Your task to perform on an android device: turn on priority inbox in the gmail app Image 0: 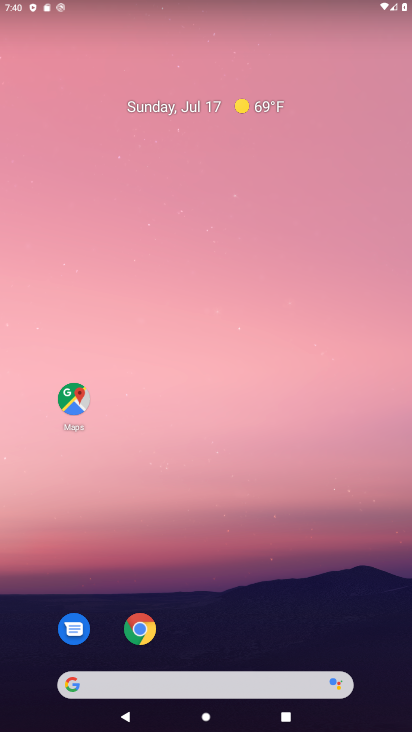
Step 0: drag from (248, 629) to (231, 137)
Your task to perform on an android device: turn on priority inbox in the gmail app Image 1: 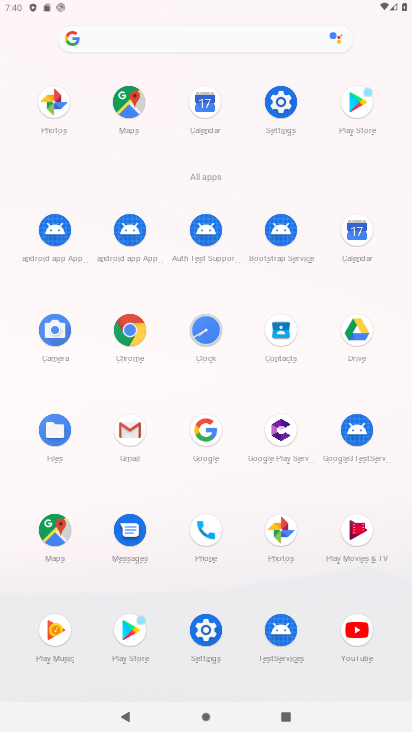
Step 1: click (125, 431)
Your task to perform on an android device: turn on priority inbox in the gmail app Image 2: 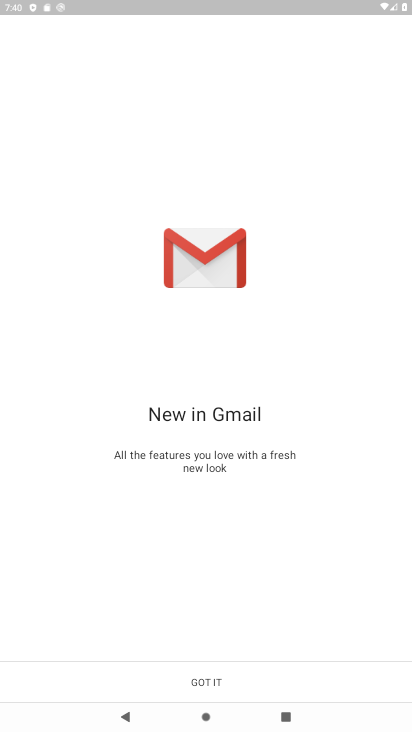
Step 2: click (204, 681)
Your task to perform on an android device: turn on priority inbox in the gmail app Image 3: 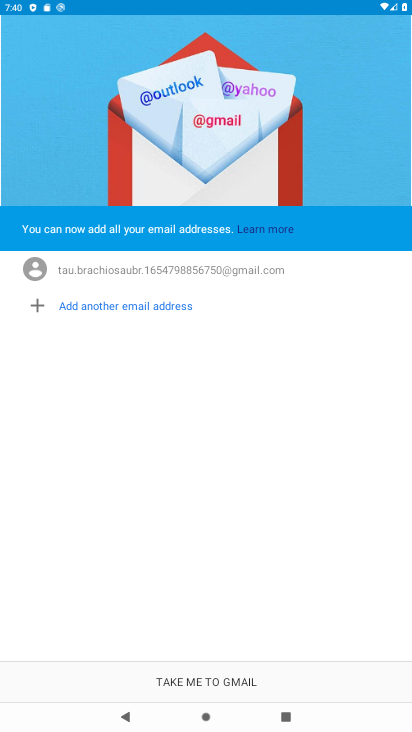
Step 3: click (195, 685)
Your task to perform on an android device: turn on priority inbox in the gmail app Image 4: 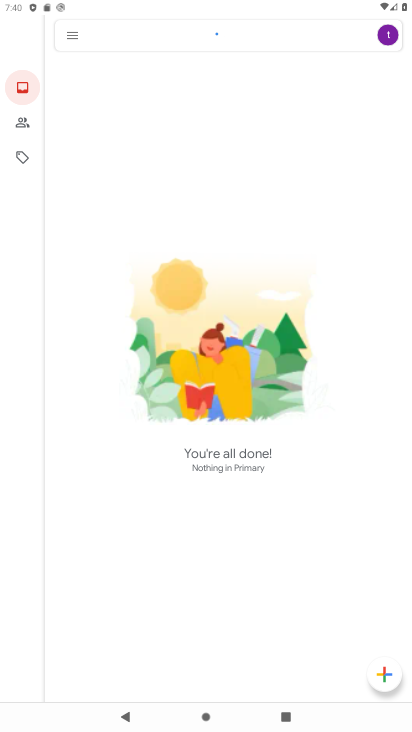
Step 4: click (76, 37)
Your task to perform on an android device: turn on priority inbox in the gmail app Image 5: 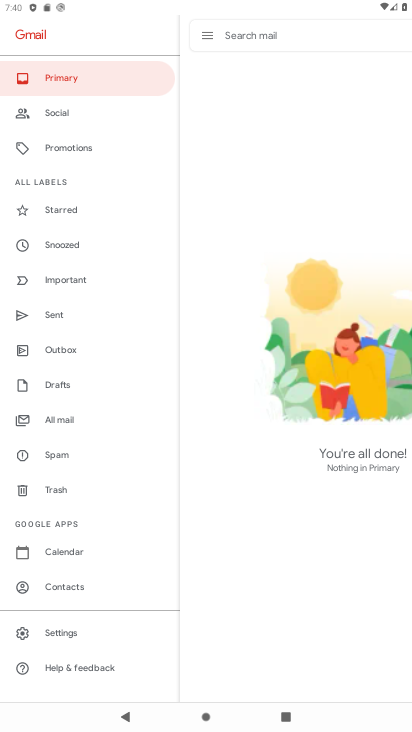
Step 5: click (66, 637)
Your task to perform on an android device: turn on priority inbox in the gmail app Image 6: 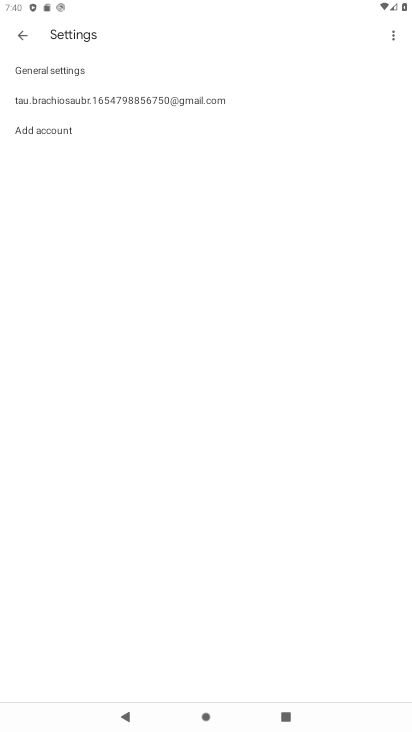
Step 6: click (46, 92)
Your task to perform on an android device: turn on priority inbox in the gmail app Image 7: 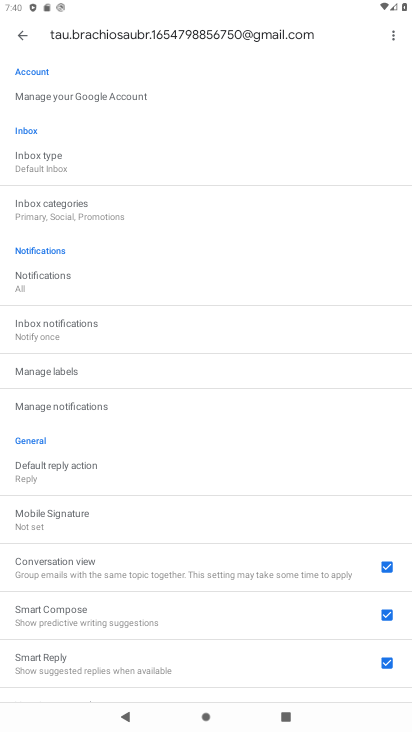
Step 7: click (49, 162)
Your task to perform on an android device: turn on priority inbox in the gmail app Image 8: 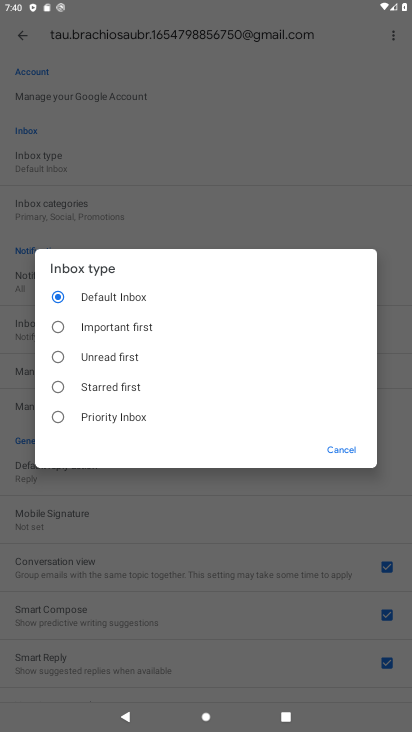
Step 8: click (58, 419)
Your task to perform on an android device: turn on priority inbox in the gmail app Image 9: 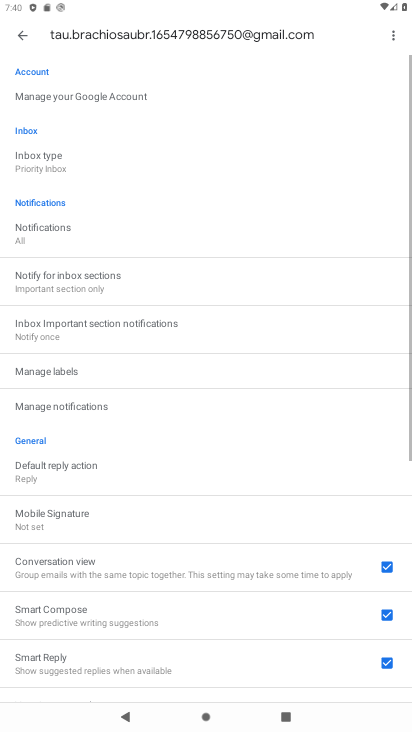
Step 9: task complete